Your task to perform on an android device: Open Google Chrome and open the bookmarks view Image 0: 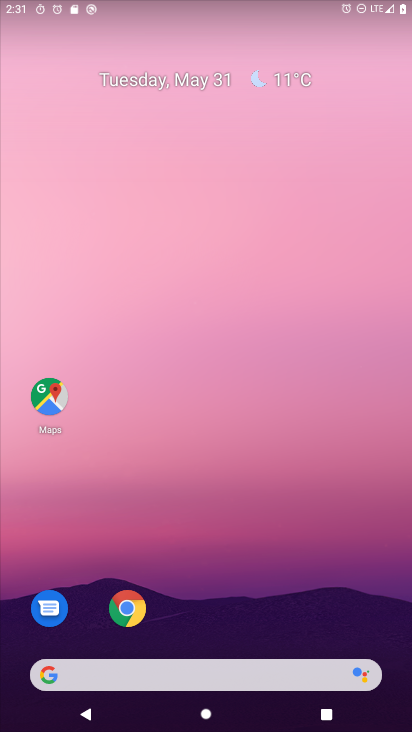
Step 0: drag from (301, 638) to (254, 723)
Your task to perform on an android device: Open Google Chrome and open the bookmarks view Image 1: 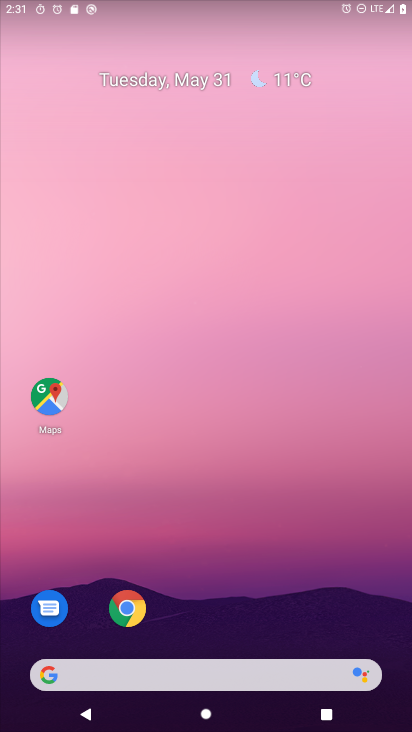
Step 1: click (132, 616)
Your task to perform on an android device: Open Google Chrome and open the bookmarks view Image 2: 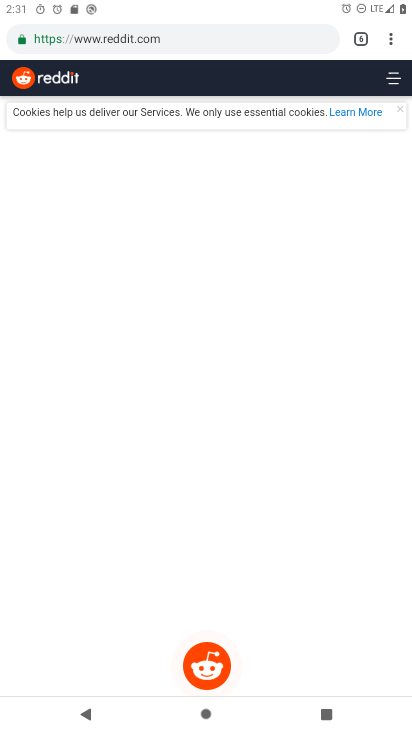
Step 2: click (391, 41)
Your task to perform on an android device: Open Google Chrome and open the bookmarks view Image 3: 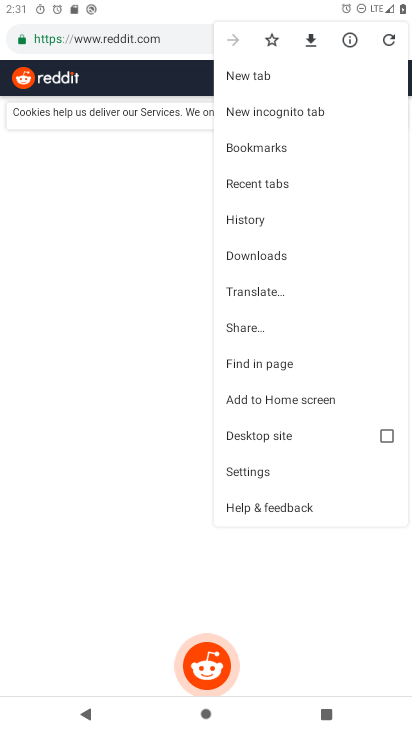
Step 3: click (263, 144)
Your task to perform on an android device: Open Google Chrome and open the bookmarks view Image 4: 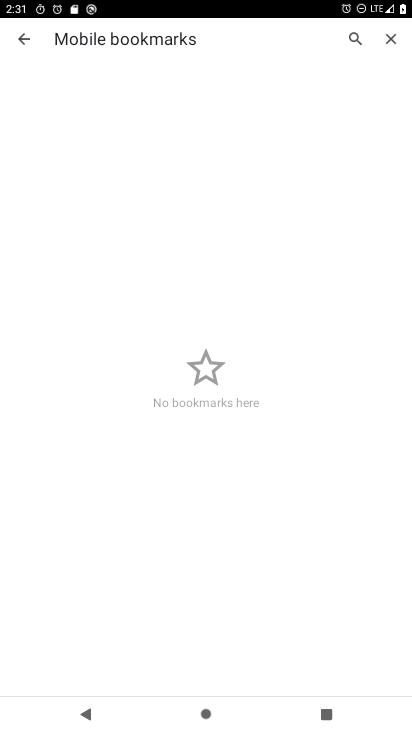
Step 4: task complete